Your task to perform on an android device: Open calendar and show me the second week of next month Image 0: 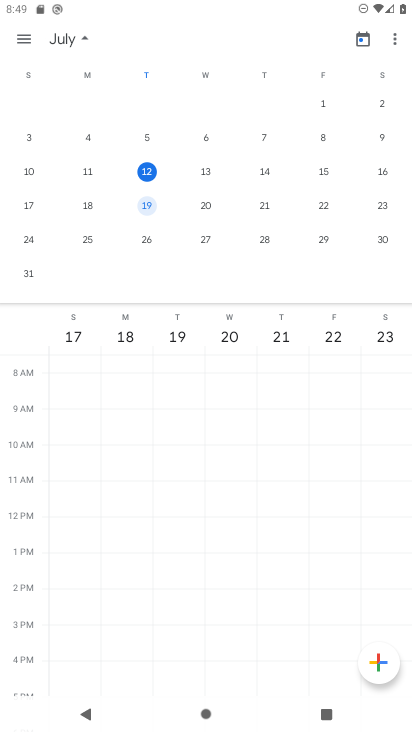
Step 0: drag from (376, 271) to (50, 220)
Your task to perform on an android device: Open calendar and show me the second week of next month Image 1: 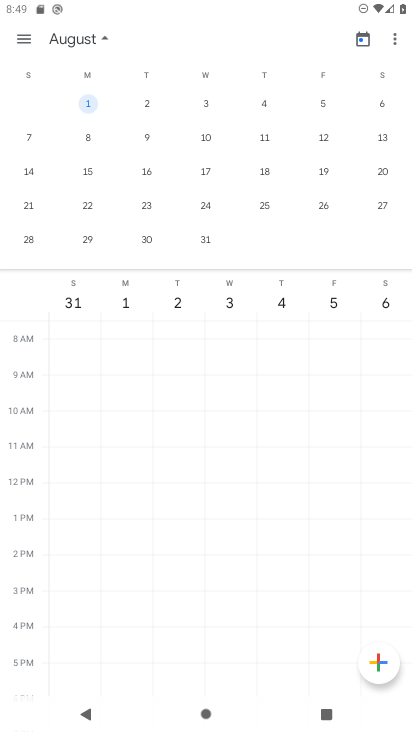
Step 1: click (211, 146)
Your task to perform on an android device: Open calendar and show me the second week of next month Image 2: 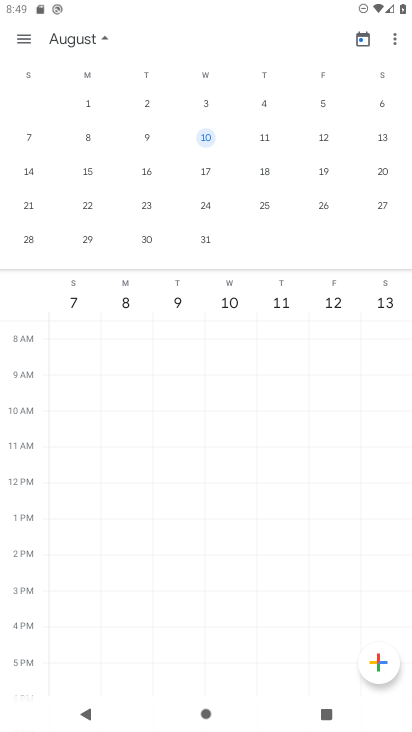
Step 2: task complete